Your task to perform on an android device: turn off data saver in the chrome app Image 0: 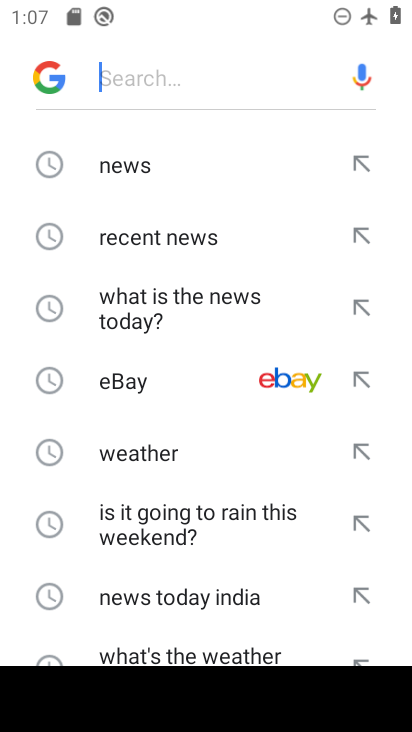
Step 0: press home button
Your task to perform on an android device: turn off data saver in the chrome app Image 1: 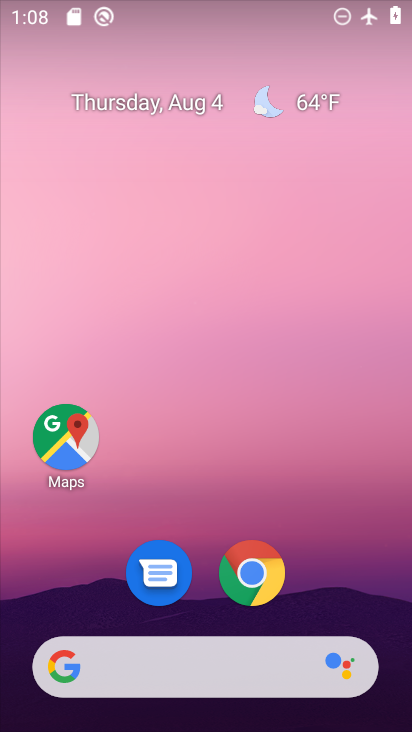
Step 1: drag from (346, 611) to (347, 165)
Your task to perform on an android device: turn off data saver in the chrome app Image 2: 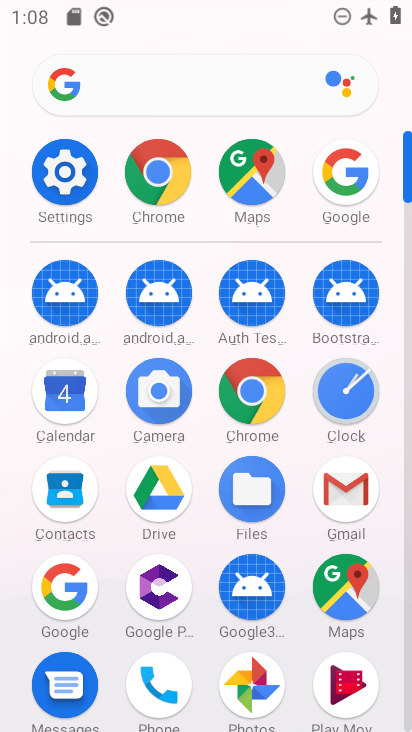
Step 2: click (254, 395)
Your task to perform on an android device: turn off data saver in the chrome app Image 3: 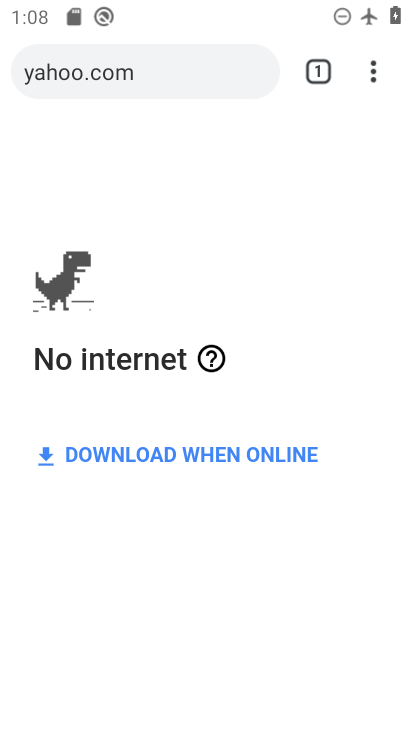
Step 3: drag from (375, 75) to (215, 576)
Your task to perform on an android device: turn off data saver in the chrome app Image 4: 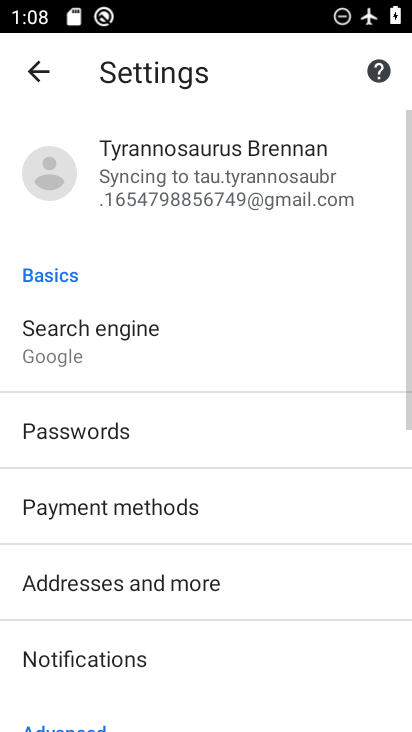
Step 4: drag from (286, 568) to (295, 157)
Your task to perform on an android device: turn off data saver in the chrome app Image 5: 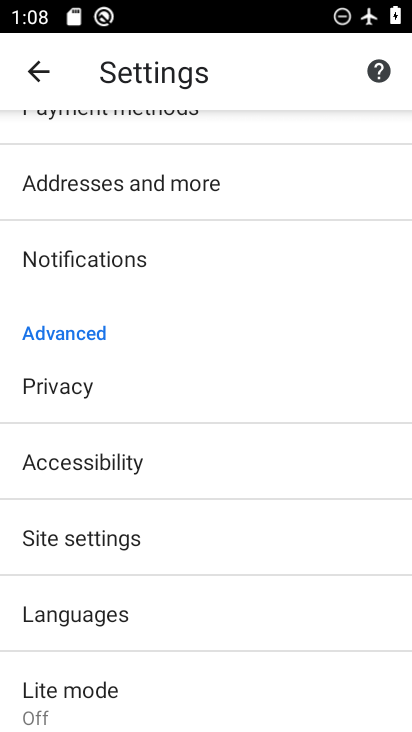
Step 5: click (105, 678)
Your task to perform on an android device: turn off data saver in the chrome app Image 6: 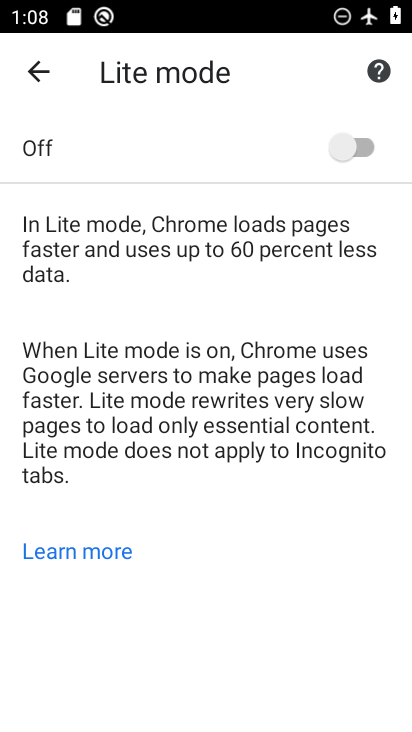
Step 6: task complete